Your task to perform on an android device: open device folders in google photos Image 0: 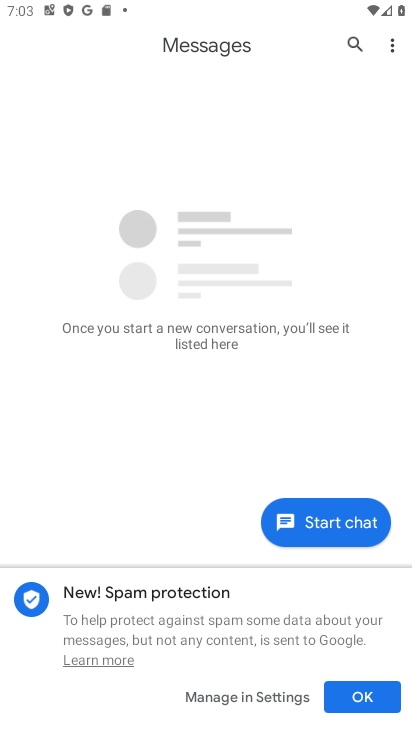
Step 0: press home button
Your task to perform on an android device: open device folders in google photos Image 1: 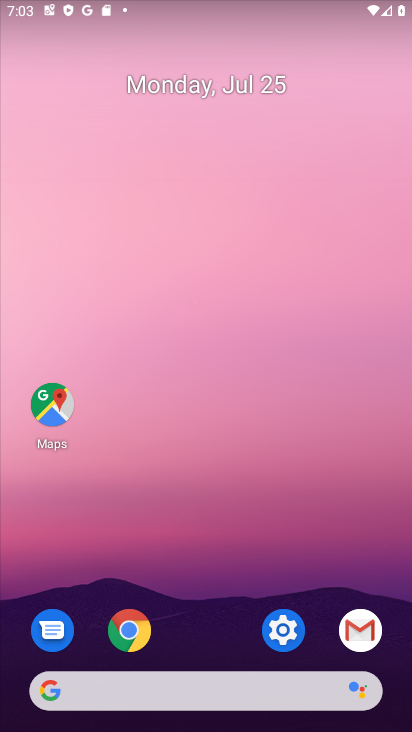
Step 1: drag from (241, 712) to (255, 282)
Your task to perform on an android device: open device folders in google photos Image 2: 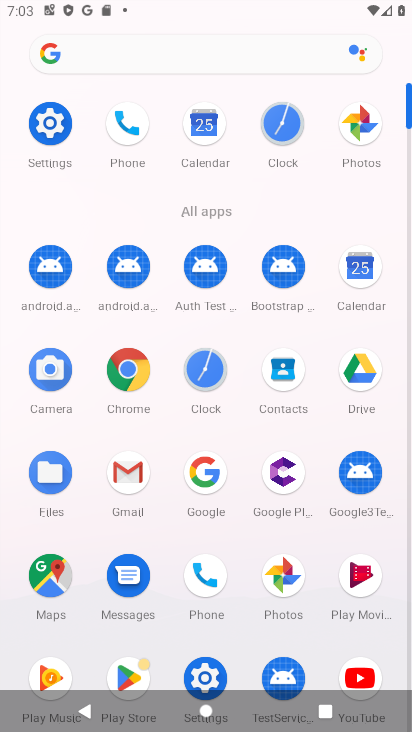
Step 2: click (377, 137)
Your task to perform on an android device: open device folders in google photos Image 3: 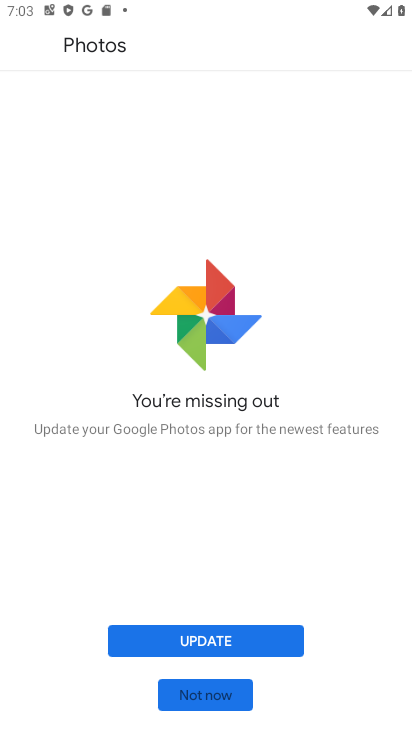
Step 3: click (223, 643)
Your task to perform on an android device: open device folders in google photos Image 4: 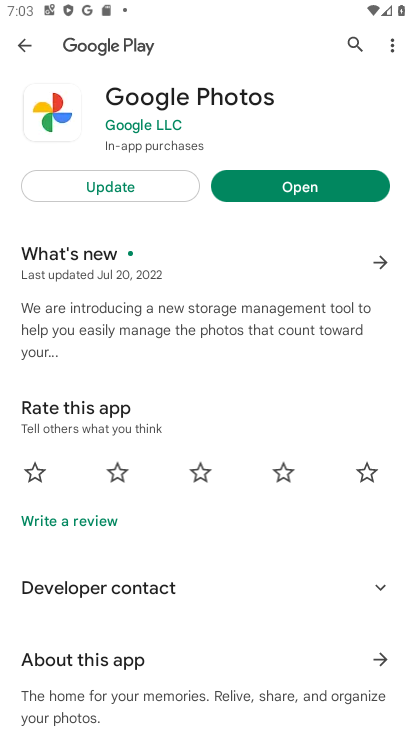
Step 4: click (294, 191)
Your task to perform on an android device: open device folders in google photos Image 5: 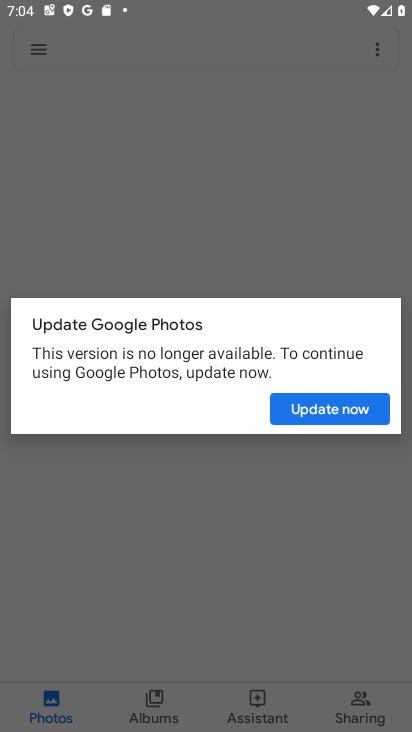
Step 5: click (301, 406)
Your task to perform on an android device: open device folders in google photos Image 6: 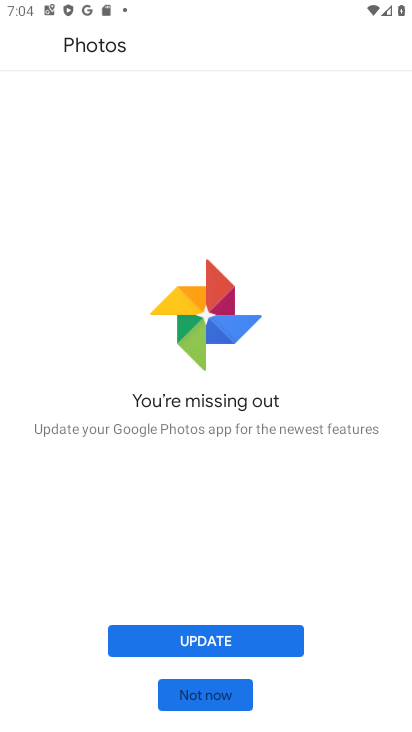
Step 6: click (224, 636)
Your task to perform on an android device: open device folders in google photos Image 7: 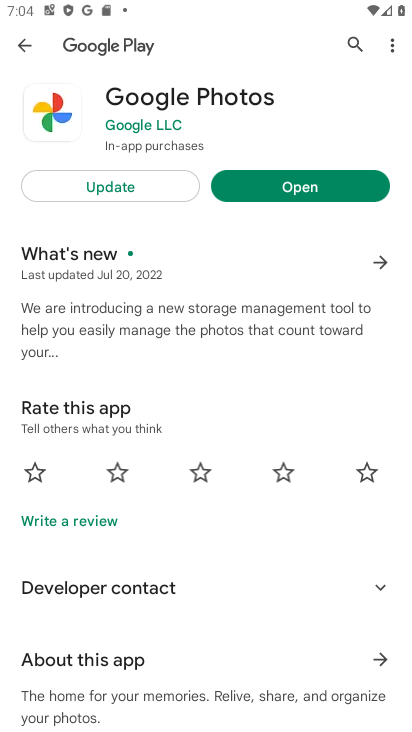
Step 7: click (120, 180)
Your task to perform on an android device: open device folders in google photos Image 8: 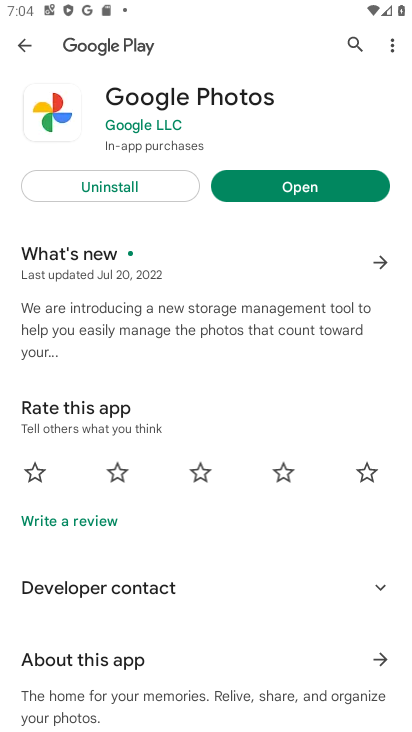
Step 8: click (277, 192)
Your task to perform on an android device: open device folders in google photos Image 9: 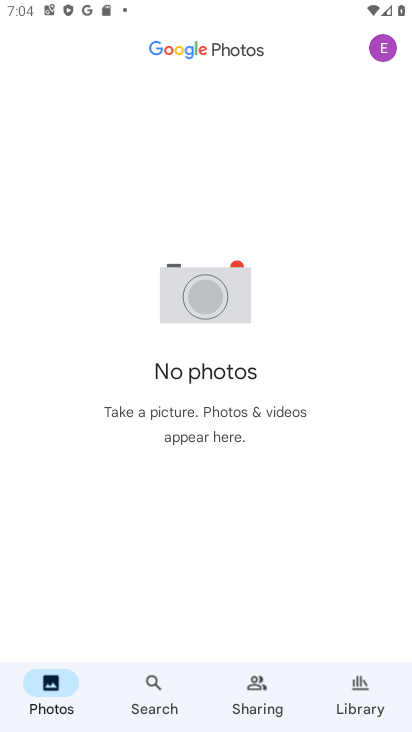
Step 9: click (152, 689)
Your task to perform on an android device: open device folders in google photos Image 10: 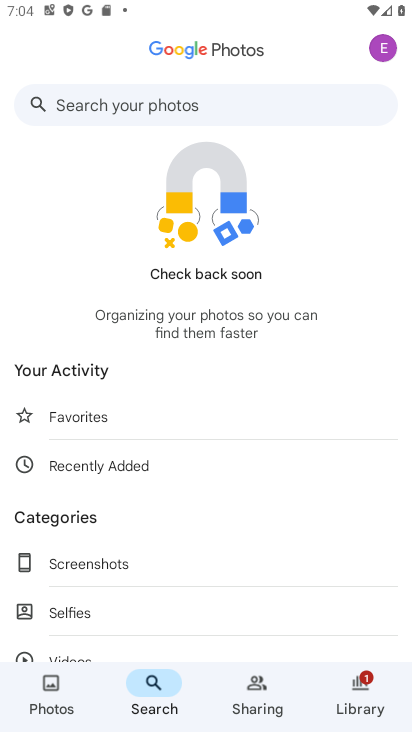
Step 10: click (120, 107)
Your task to perform on an android device: open device folders in google photos Image 11: 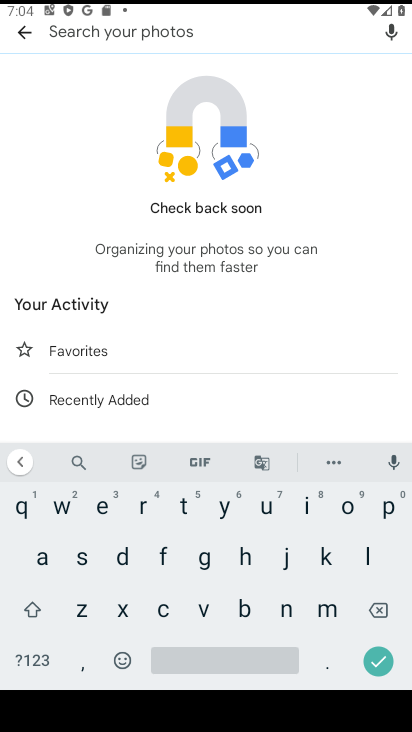
Step 11: click (124, 554)
Your task to perform on an android device: open device folders in google photos Image 12: 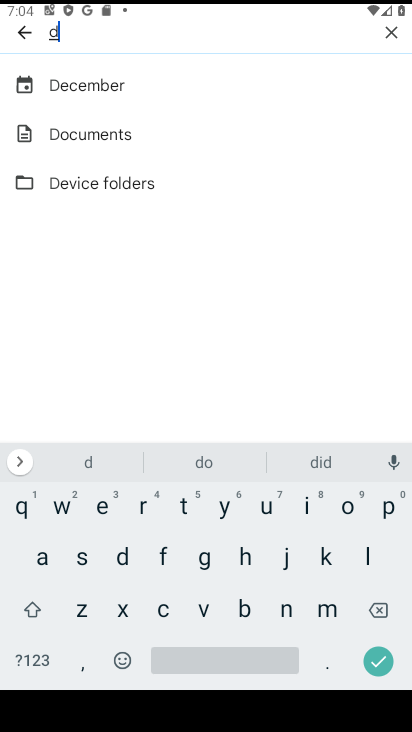
Step 12: click (100, 175)
Your task to perform on an android device: open device folders in google photos Image 13: 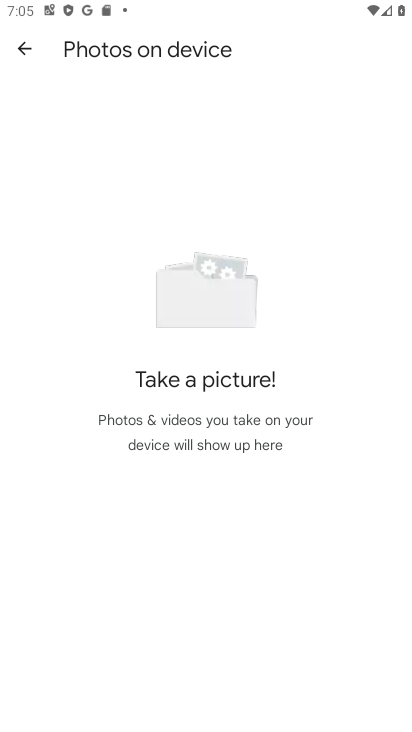
Step 13: task complete